Your task to perform on an android device: What's the weather going to be tomorrow? Image 0: 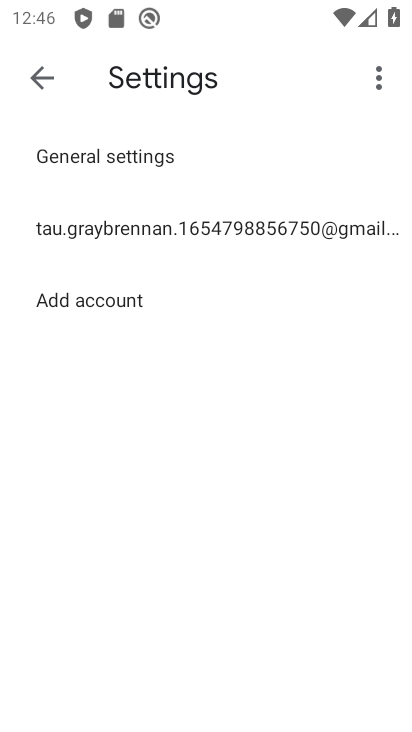
Step 0: press home button
Your task to perform on an android device: What's the weather going to be tomorrow? Image 1: 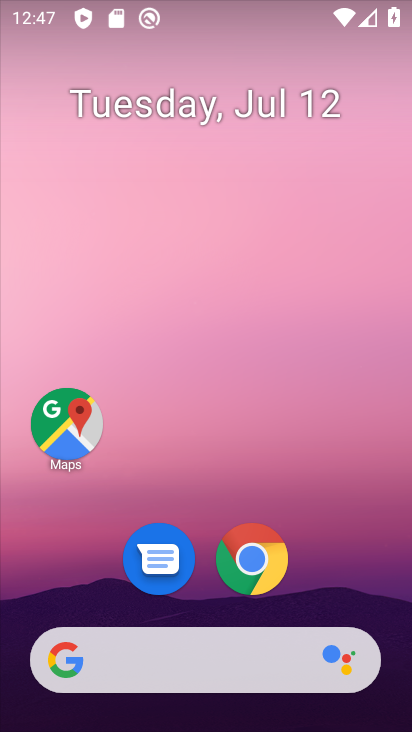
Step 1: click (265, 651)
Your task to perform on an android device: What's the weather going to be tomorrow? Image 2: 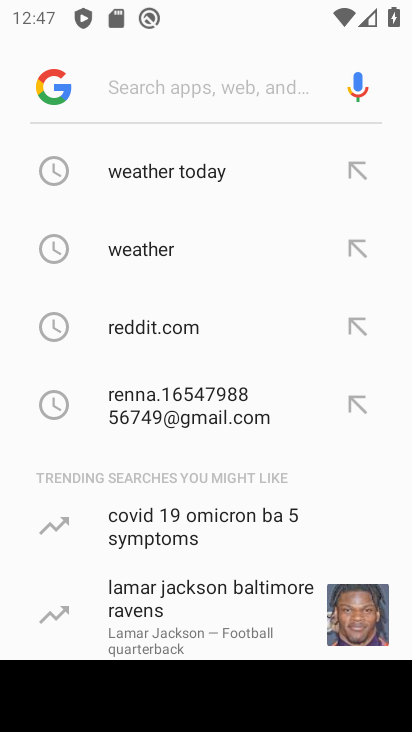
Step 2: click (139, 249)
Your task to perform on an android device: What's the weather going to be tomorrow? Image 3: 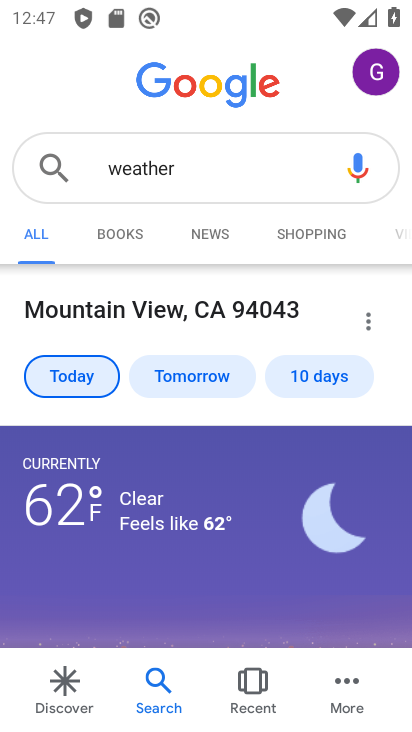
Step 3: click (175, 370)
Your task to perform on an android device: What's the weather going to be tomorrow? Image 4: 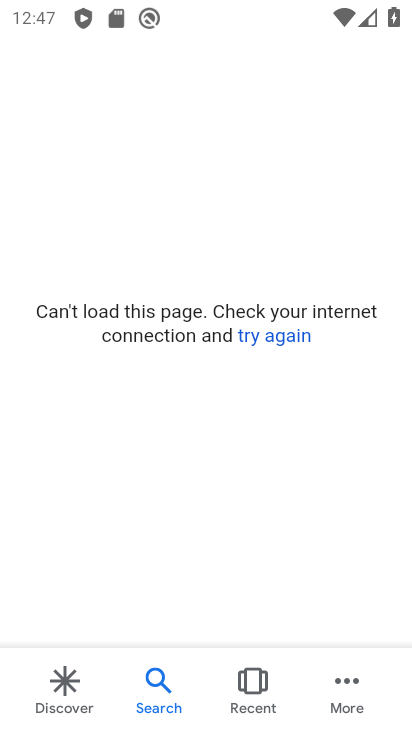
Step 4: task complete